Your task to perform on an android device: Open privacy settings Image 0: 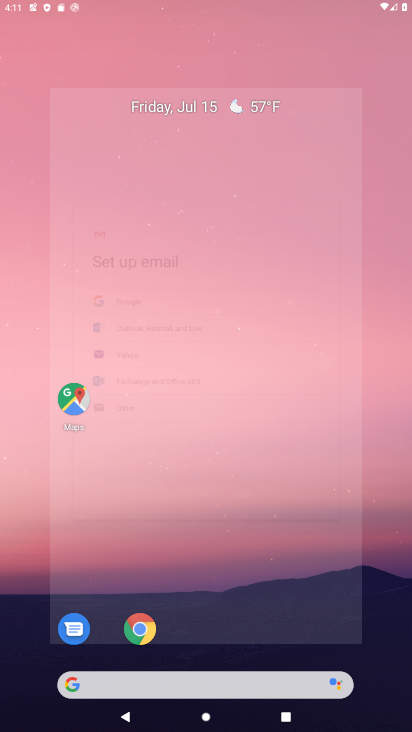
Step 0: press home button
Your task to perform on an android device: Open privacy settings Image 1: 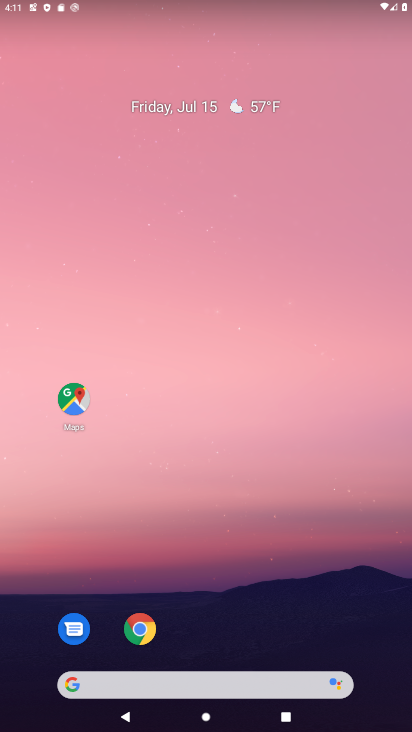
Step 1: drag from (256, 650) to (271, 129)
Your task to perform on an android device: Open privacy settings Image 2: 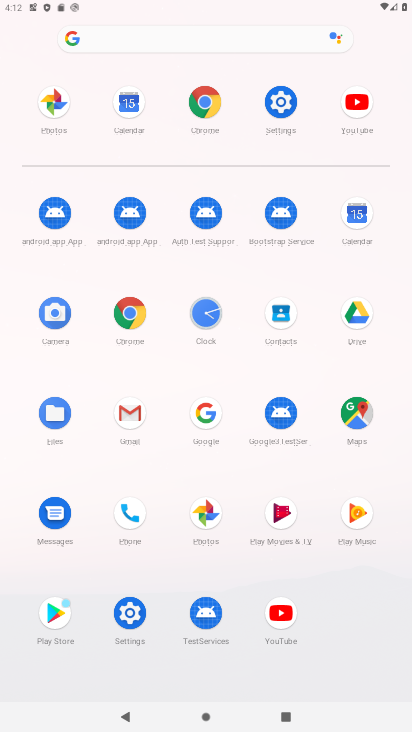
Step 2: click (278, 106)
Your task to perform on an android device: Open privacy settings Image 3: 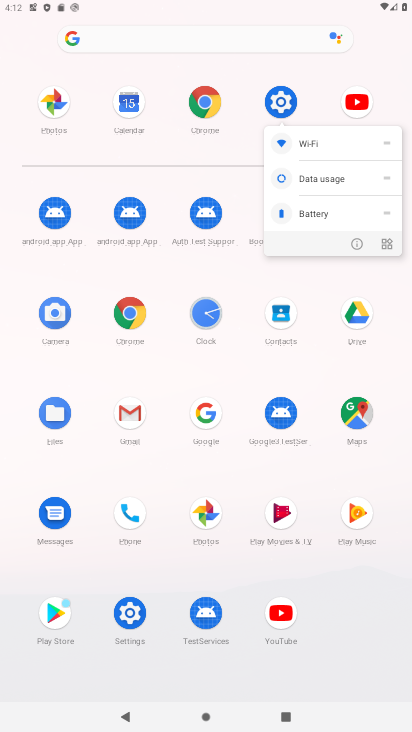
Step 3: click (278, 106)
Your task to perform on an android device: Open privacy settings Image 4: 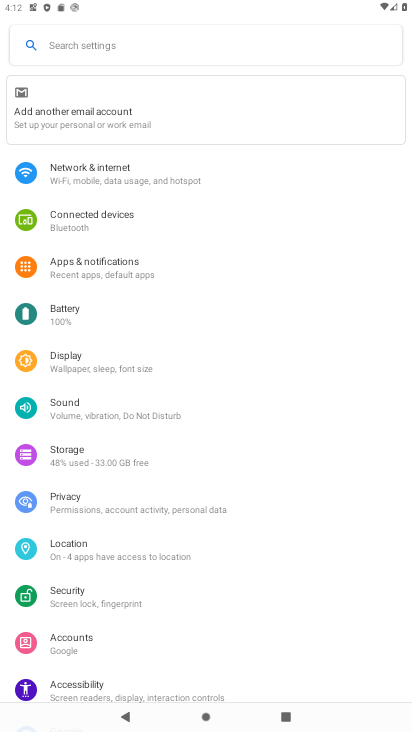
Step 4: click (63, 504)
Your task to perform on an android device: Open privacy settings Image 5: 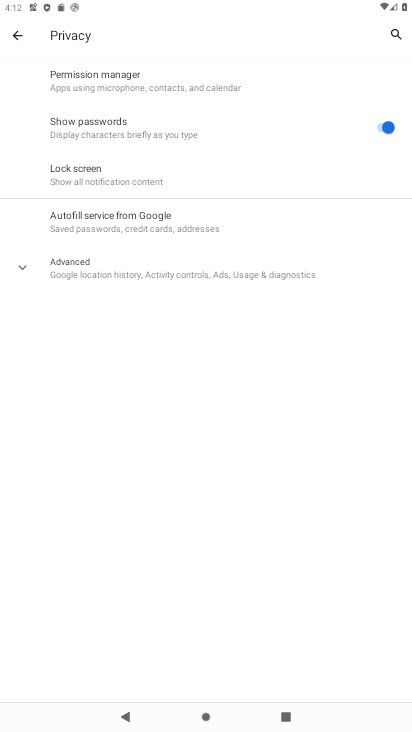
Step 5: task complete